Your task to perform on an android device: Go to Google Image 0: 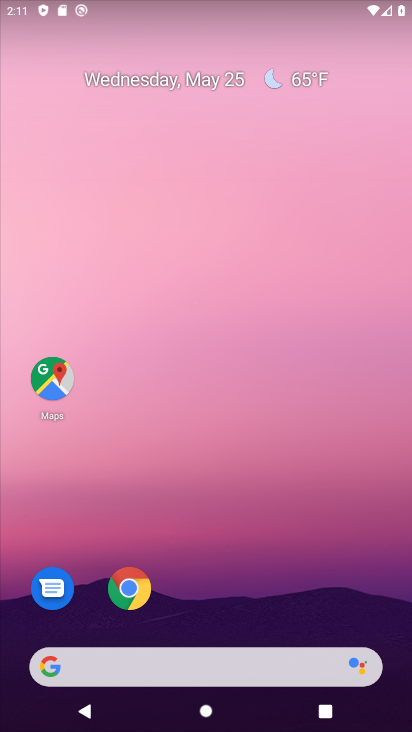
Step 0: drag from (263, 495) to (337, 220)
Your task to perform on an android device: Go to Google Image 1: 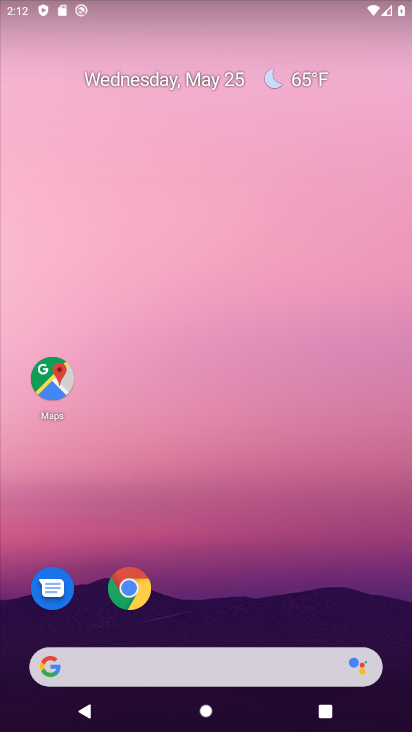
Step 1: drag from (176, 614) to (263, 173)
Your task to perform on an android device: Go to Google Image 2: 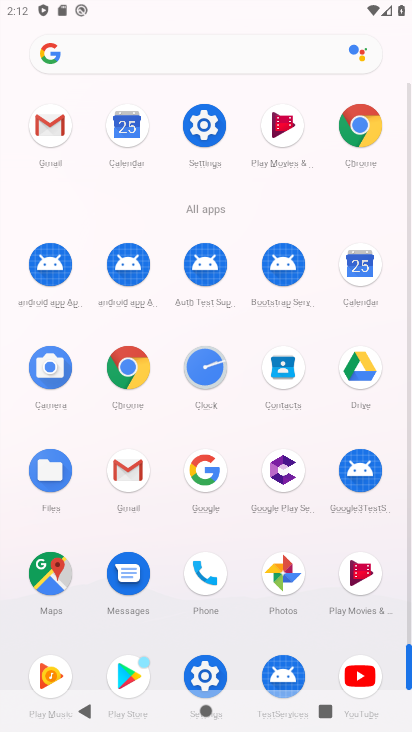
Step 2: click (201, 468)
Your task to perform on an android device: Go to Google Image 3: 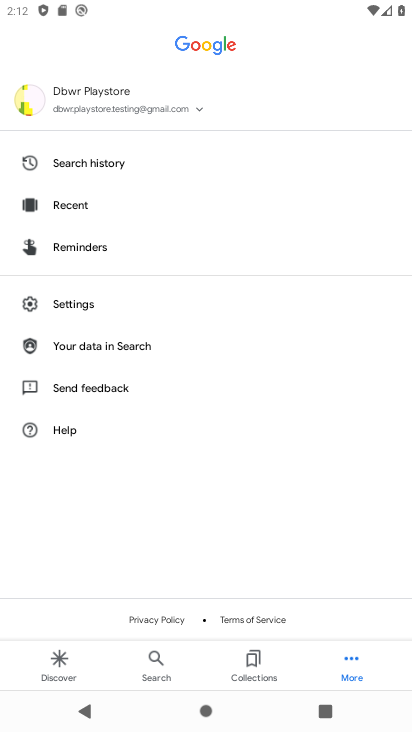
Step 3: task complete